Your task to perform on an android device: Search for Mexican restaurants on Maps Image 0: 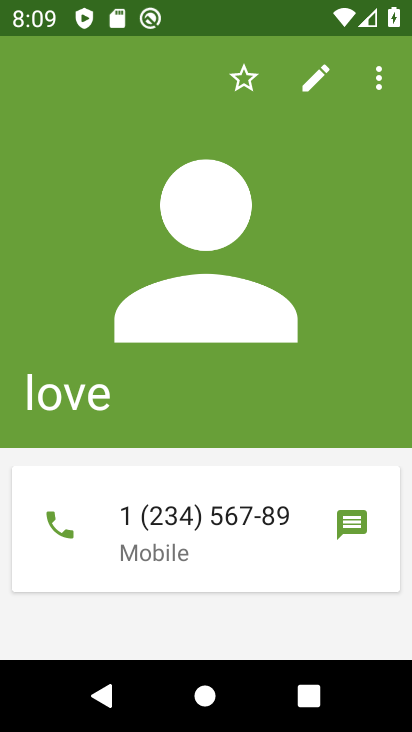
Step 0: press home button
Your task to perform on an android device: Search for Mexican restaurants on Maps Image 1: 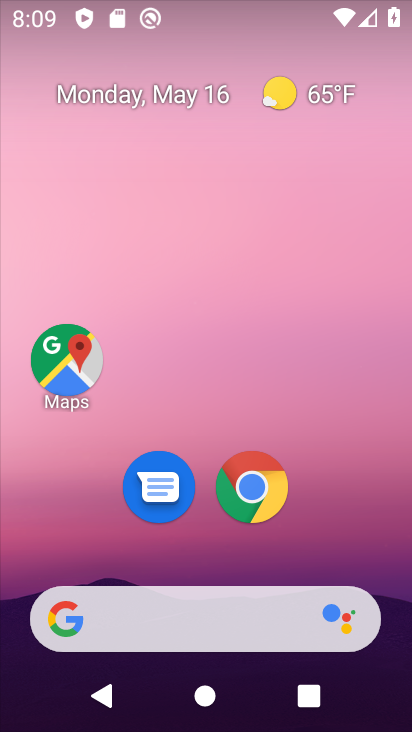
Step 1: drag from (374, 562) to (351, 104)
Your task to perform on an android device: Search for Mexican restaurants on Maps Image 2: 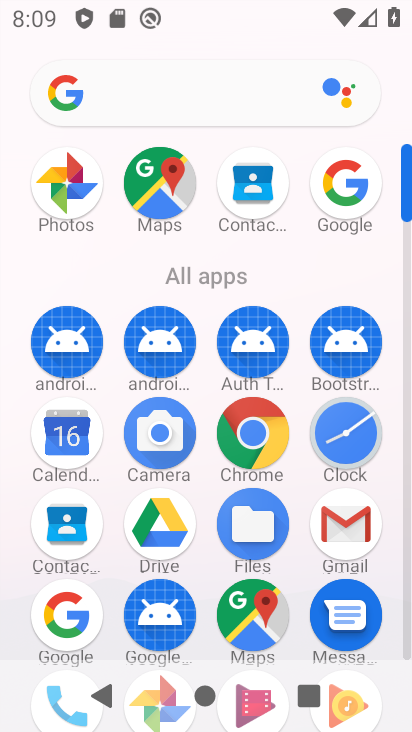
Step 2: click (164, 197)
Your task to perform on an android device: Search for Mexican restaurants on Maps Image 3: 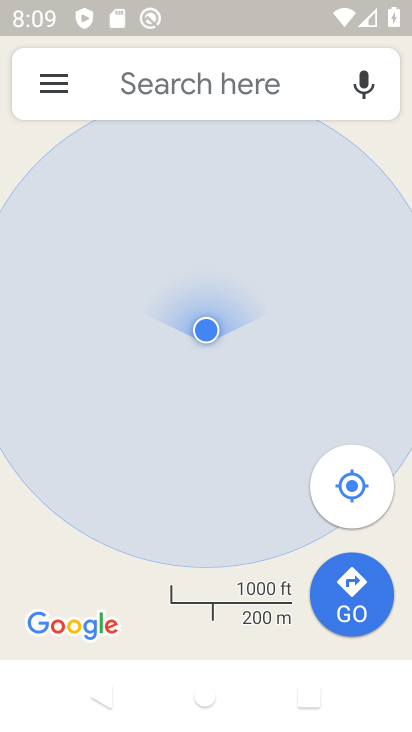
Step 3: click (223, 82)
Your task to perform on an android device: Search for Mexican restaurants on Maps Image 4: 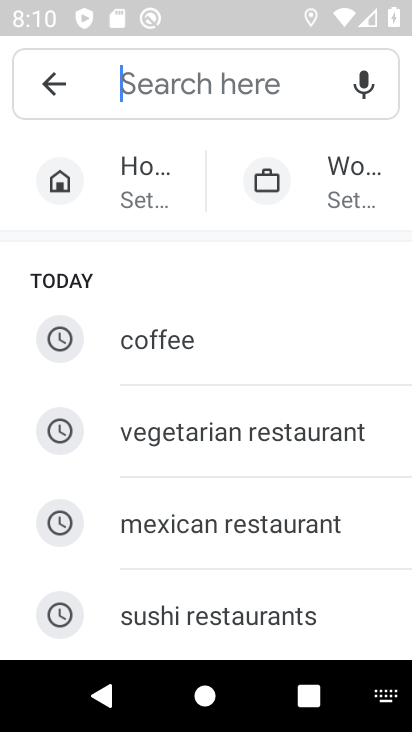
Step 4: type "mexcian "
Your task to perform on an android device: Search for Mexican restaurants on Maps Image 5: 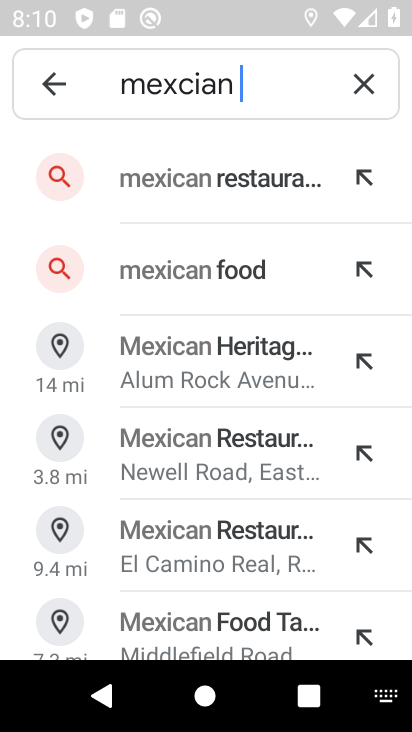
Step 5: click (270, 182)
Your task to perform on an android device: Search for Mexican restaurants on Maps Image 6: 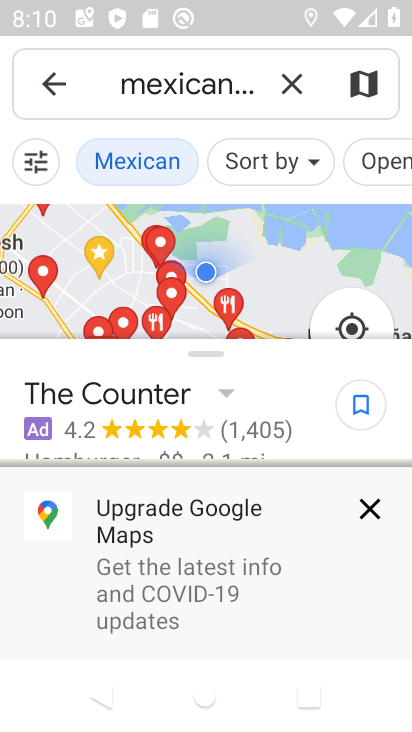
Step 6: task complete